Your task to perform on an android device: Go to display settings Image 0: 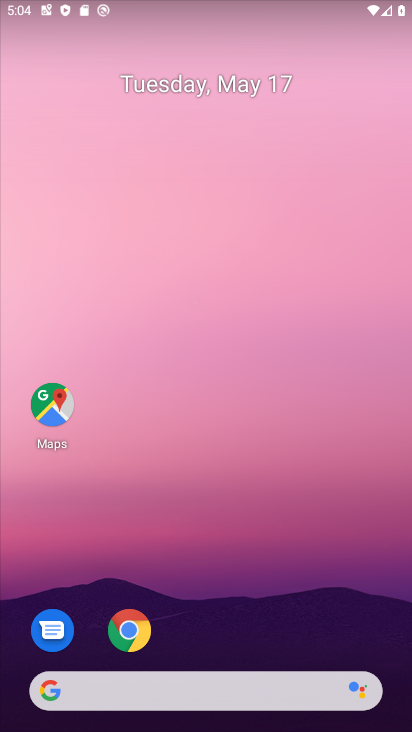
Step 0: drag from (249, 656) to (316, 294)
Your task to perform on an android device: Go to display settings Image 1: 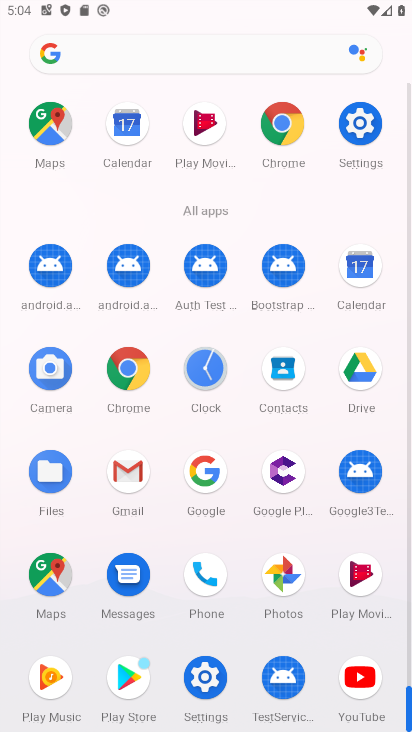
Step 1: click (375, 116)
Your task to perform on an android device: Go to display settings Image 2: 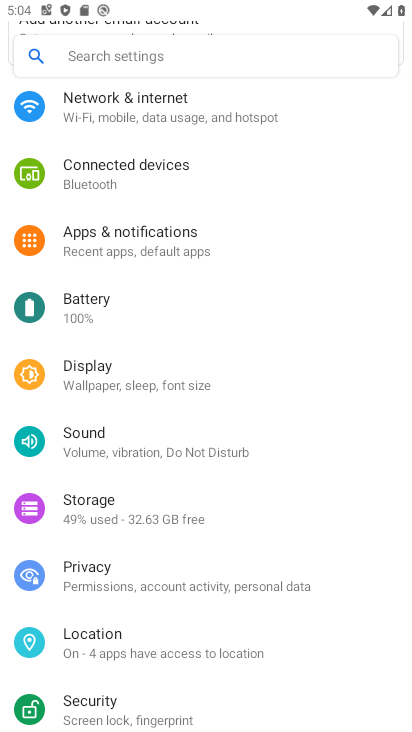
Step 2: drag from (173, 607) to (224, 360)
Your task to perform on an android device: Go to display settings Image 3: 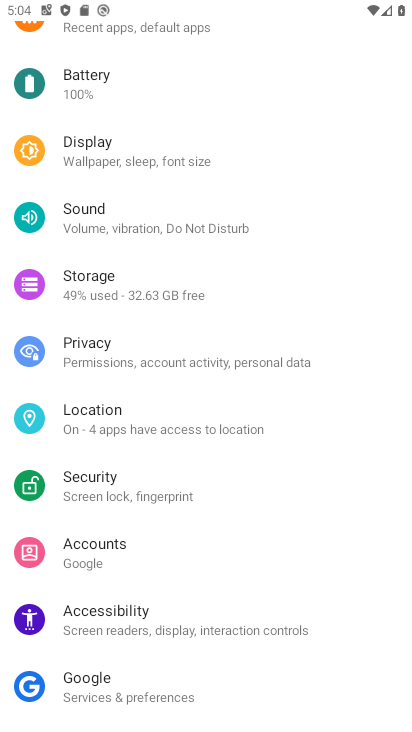
Step 3: click (120, 152)
Your task to perform on an android device: Go to display settings Image 4: 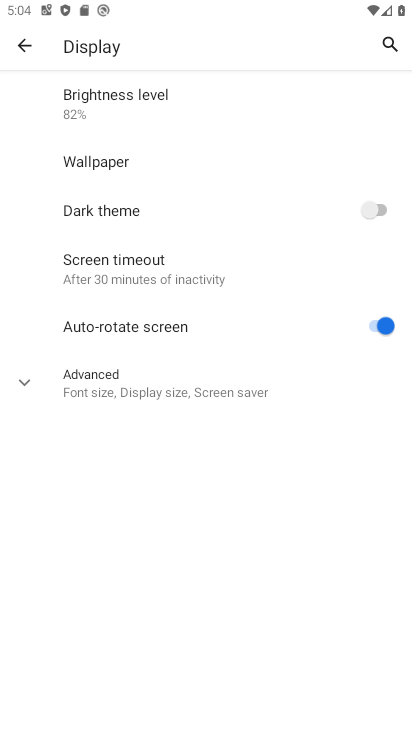
Step 4: task complete